Your task to perform on an android device: Open the web browser Image 0: 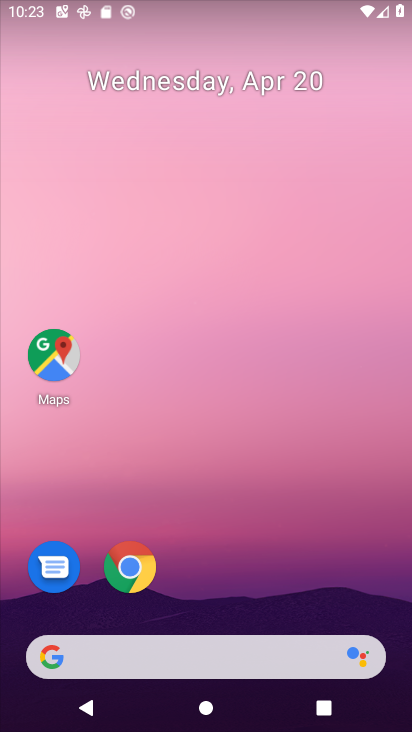
Step 0: drag from (282, 588) to (290, 79)
Your task to perform on an android device: Open the web browser Image 1: 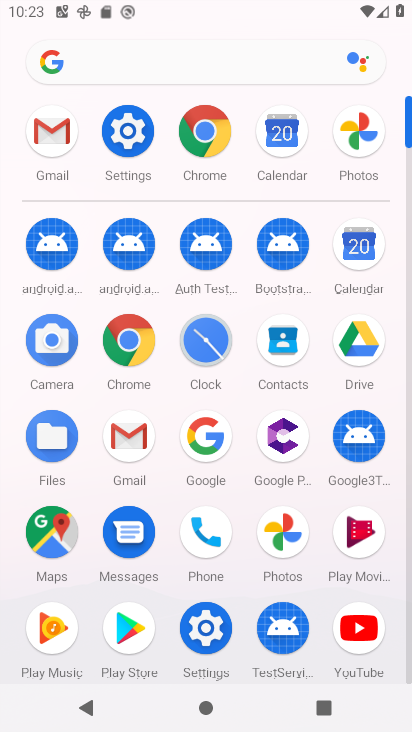
Step 1: click (135, 347)
Your task to perform on an android device: Open the web browser Image 2: 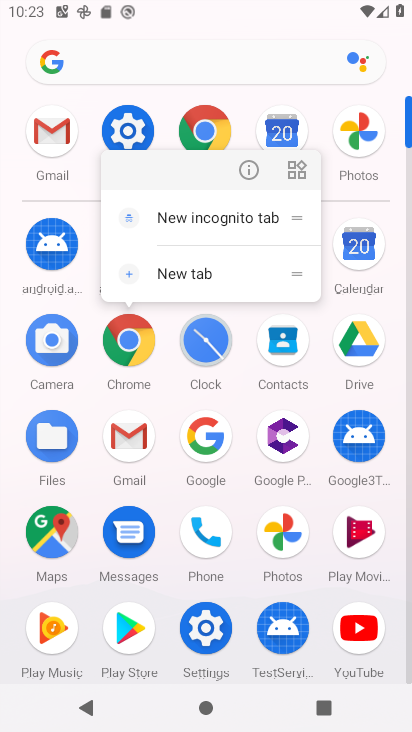
Step 2: click (135, 347)
Your task to perform on an android device: Open the web browser Image 3: 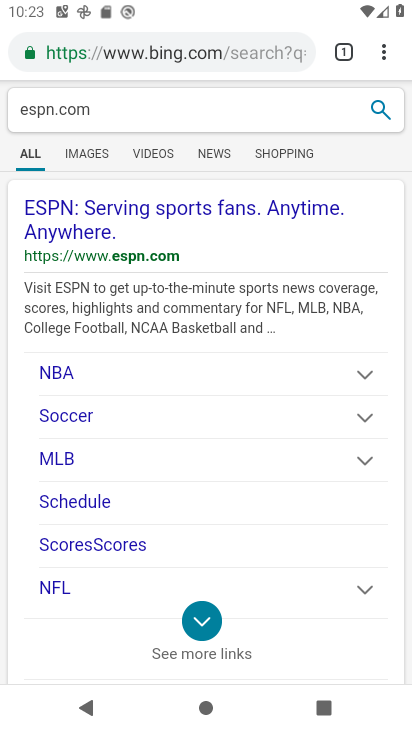
Step 3: task complete